Your task to perform on an android device: Set the phone to "Do not disturb". Image 0: 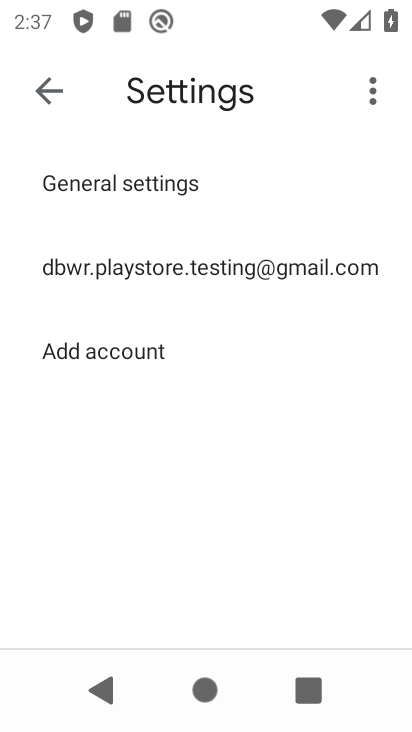
Step 0: press home button
Your task to perform on an android device: Set the phone to "Do not disturb". Image 1: 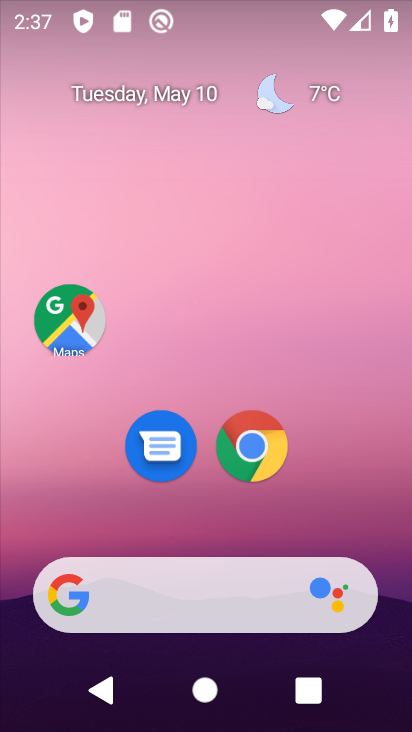
Step 1: drag from (341, 370) to (263, 13)
Your task to perform on an android device: Set the phone to "Do not disturb". Image 2: 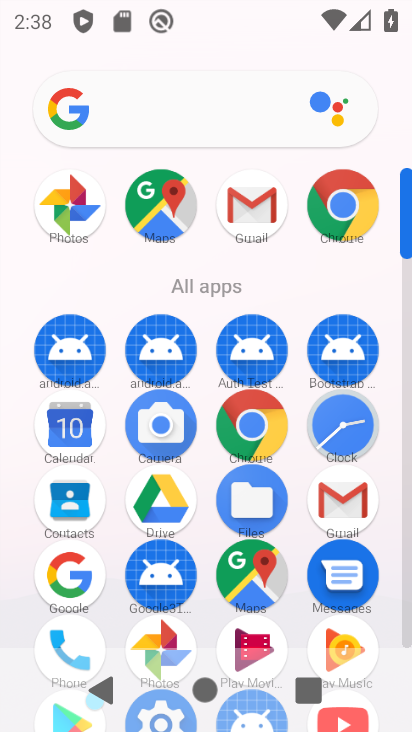
Step 2: drag from (208, 624) to (230, 235)
Your task to perform on an android device: Set the phone to "Do not disturb". Image 3: 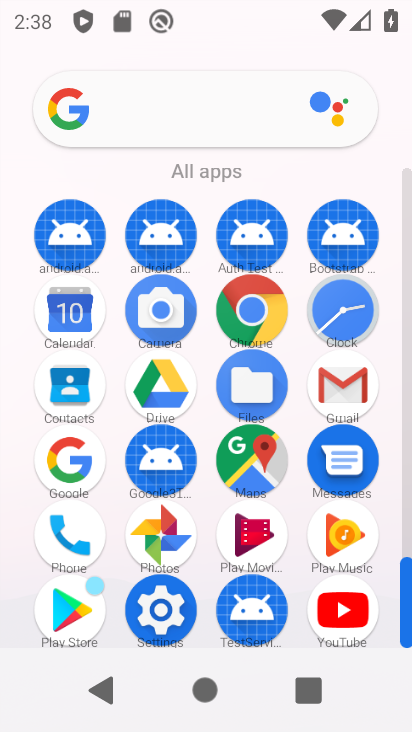
Step 3: click (160, 607)
Your task to perform on an android device: Set the phone to "Do not disturb". Image 4: 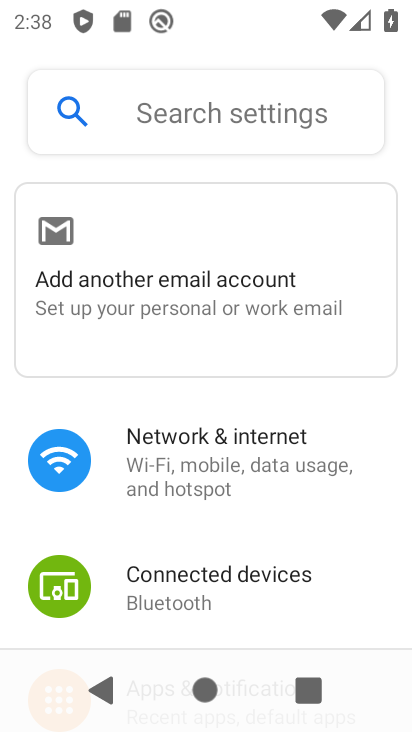
Step 4: drag from (258, 589) to (240, 159)
Your task to perform on an android device: Set the phone to "Do not disturb". Image 5: 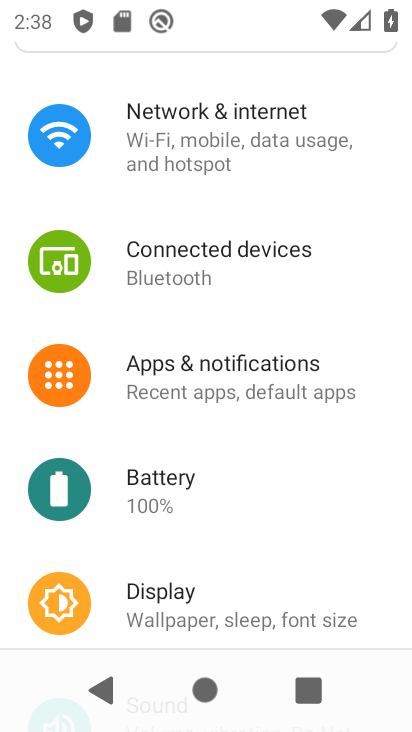
Step 5: drag from (256, 536) to (206, 168)
Your task to perform on an android device: Set the phone to "Do not disturb". Image 6: 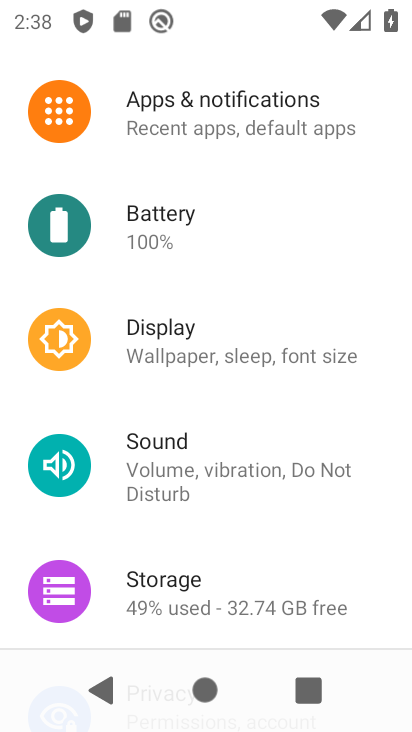
Step 6: click (213, 447)
Your task to perform on an android device: Set the phone to "Do not disturb". Image 7: 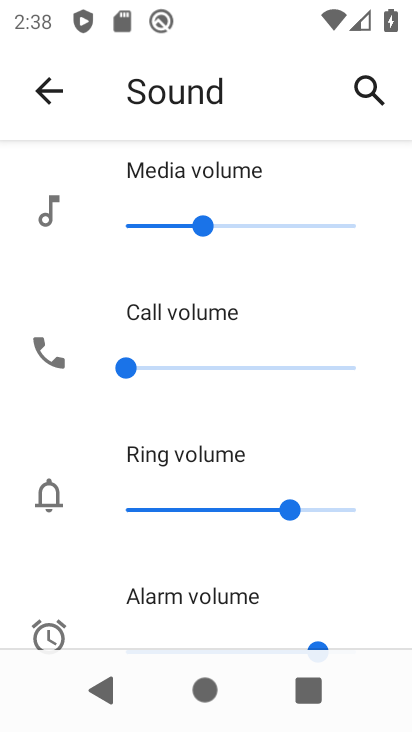
Step 7: drag from (250, 575) to (242, 102)
Your task to perform on an android device: Set the phone to "Do not disturb". Image 8: 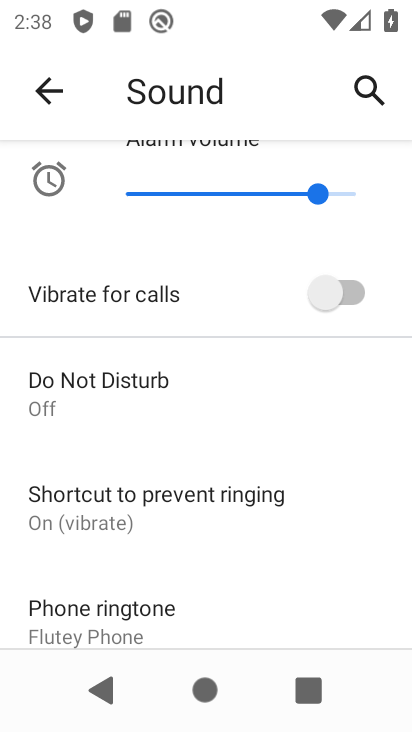
Step 8: drag from (212, 516) to (216, 250)
Your task to perform on an android device: Set the phone to "Do not disturb". Image 9: 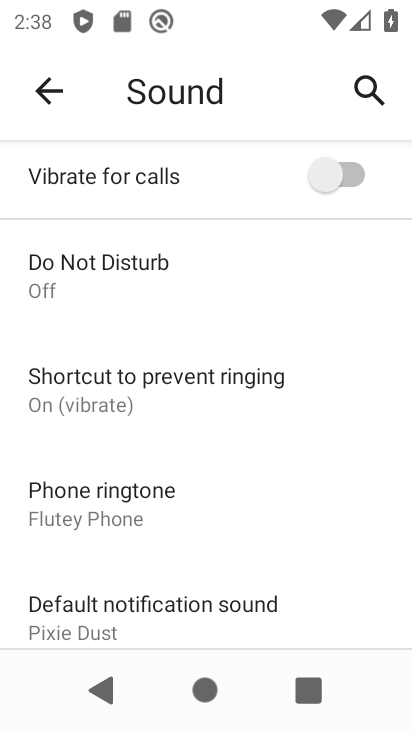
Step 9: click (164, 281)
Your task to perform on an android device: Set the phone to "Do not disturb". Image 10: 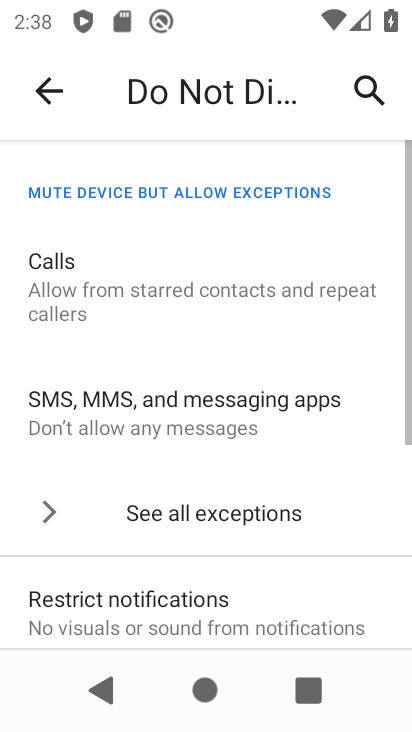
Step 10: drag from (233, 595) to (226, 196)
Your task to perform on an android device: Set the phone to "Do not disturb". Image 11: 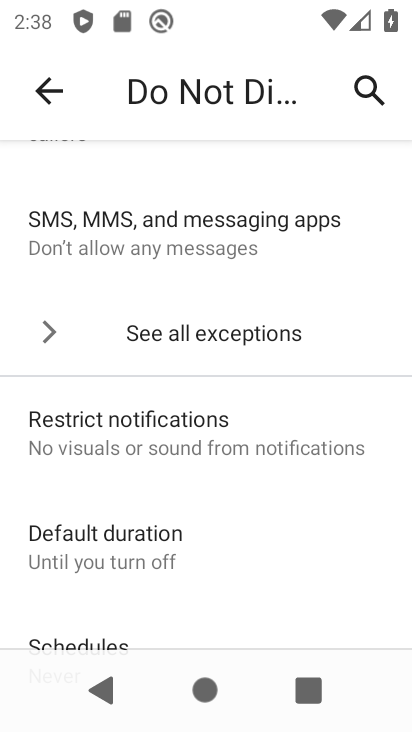
Step 11: drag from (161, 554) to (201, 276)
Your task to perform on an android device: Set the phone to "Do not disturb". Image 12: 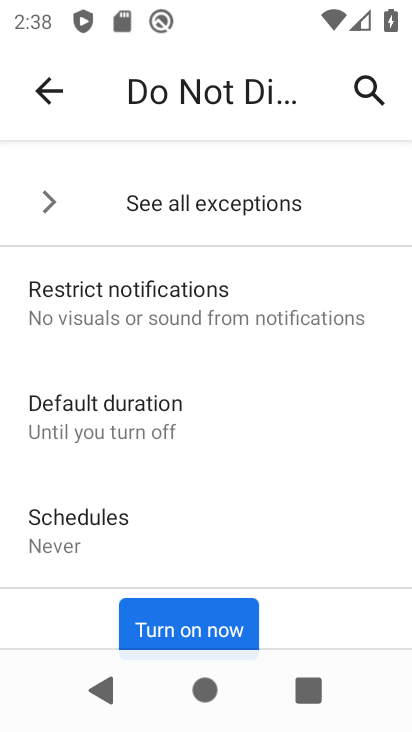
Step 12: click (195, 621)
Your task to perform on an android device: Set the phone to "Do not disturb". Image 13: 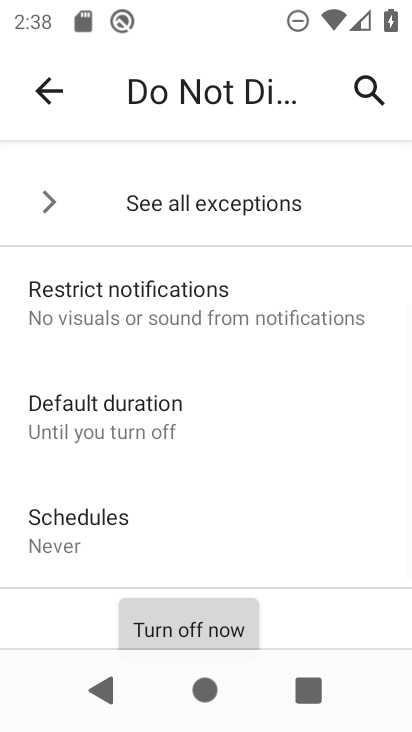
Step 13: task complete